Your task to perform on an android device: open wifi settings Image 0: 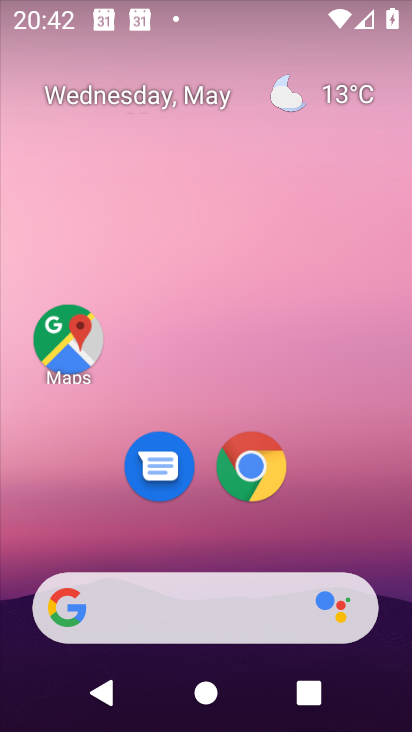
Step 0: drag from (203, 539) to (229, 23)
Your task to perform on an android device: open wifi settings Image 1: 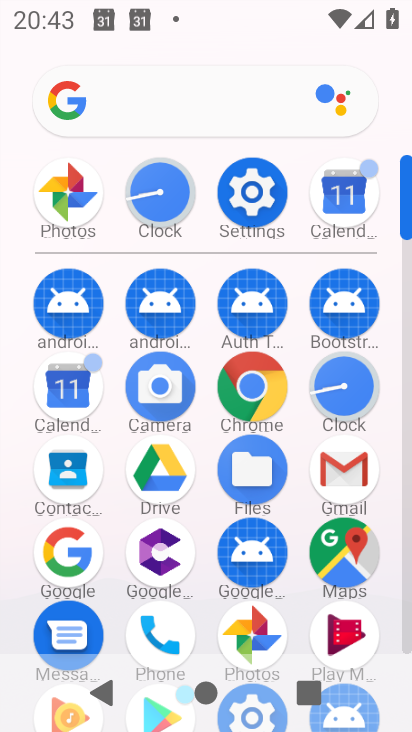
Step 1: click (250, 191)
Your task to perform on an android device: open wifi settings Image 2: 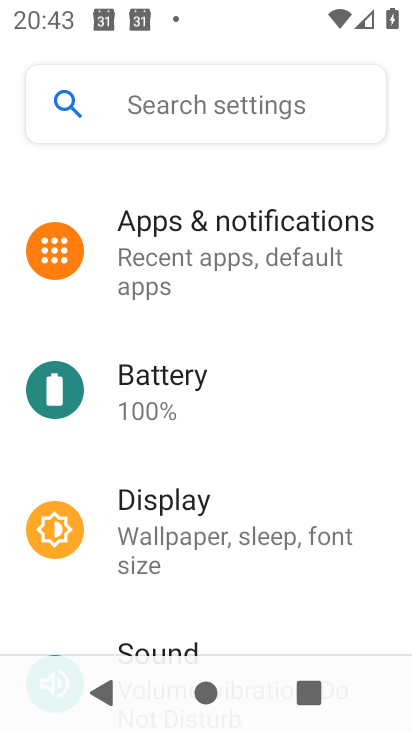
Step 2: drag from (210, 235) to (203, 644)
Your task to perform on an android device: open wifi settings Image 3: 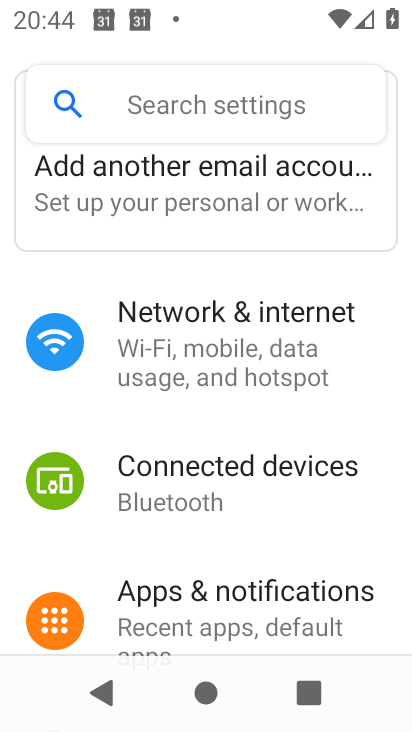
Step 3: click (206, 338)
Your task to perform on an android device: open wifi settings Image 4: 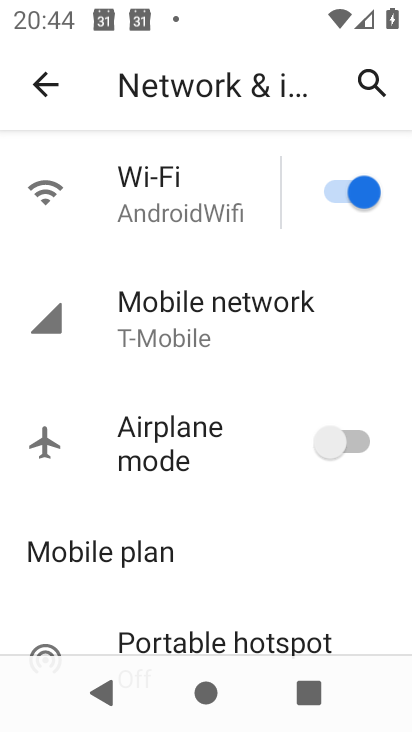
Step 4: click (201, 195)
Your task to perform on an android device: open wifi settings Image 5: 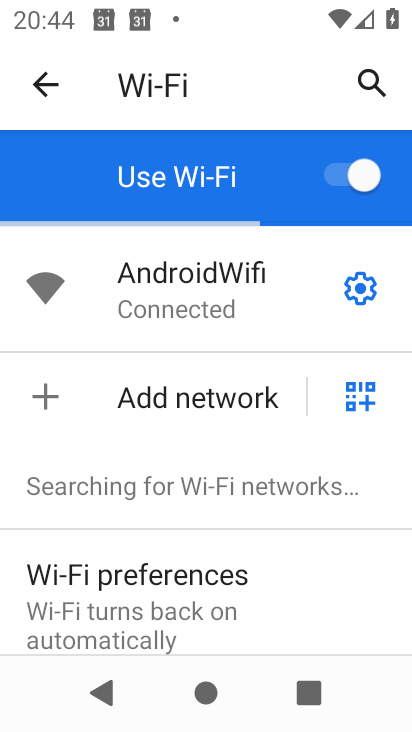
Step 5: task complete